Your task to perform on an android device: Go to notification settings Image 0: 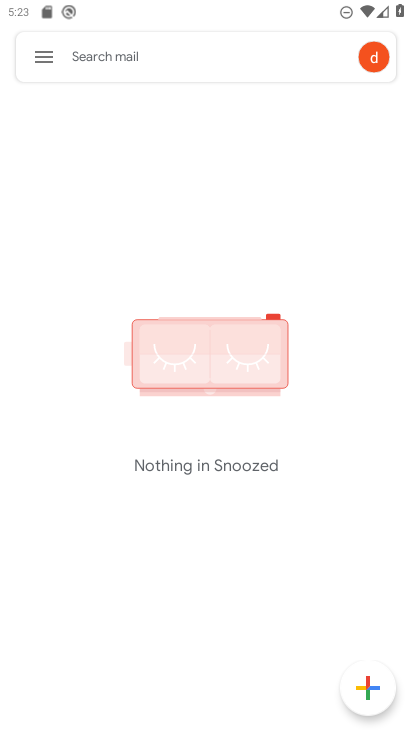
Step 0: click (165, 688)
Your task to perform on an android device: Go to notification settings Image 1: 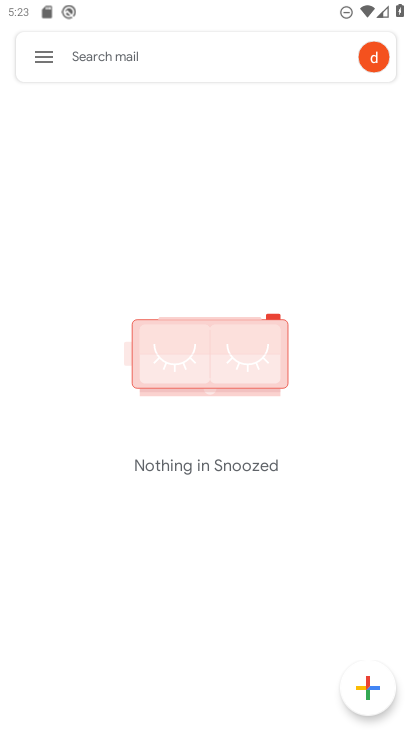
Step 1: press home button
Your task to perform on an android device: Go to notification settings Image 2: 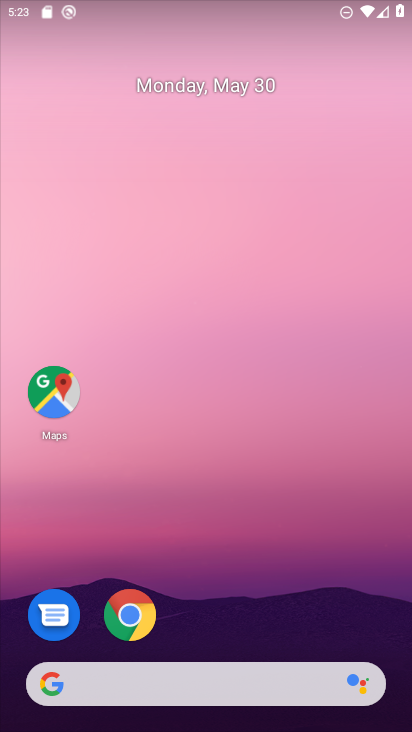
Step 2: drag from (227, 405) to (214, 92)
Your task to perform on an android device: Go to notification settings Image 3: 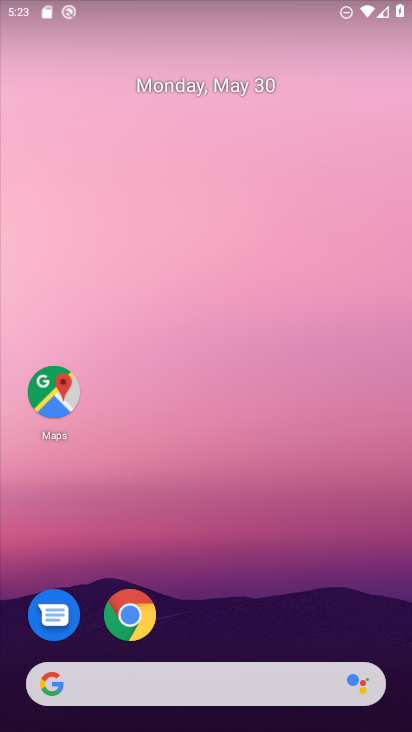
Step 3: drag from (238, 631) to (236, 110)
Your task to perform on an android device: Go to notification settings Image 4: 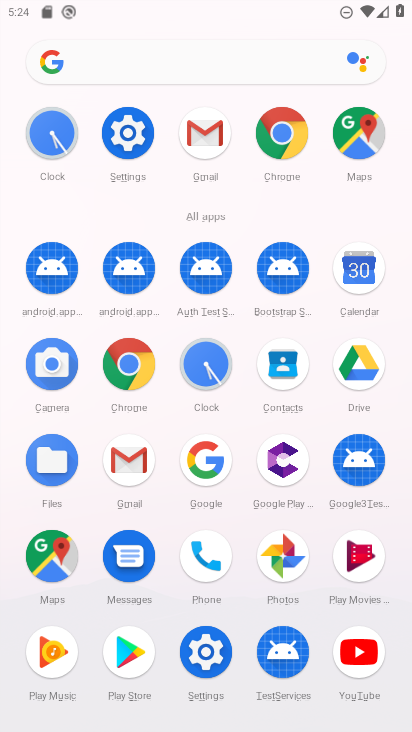
Step 4: click (118, 117)
Your task to perform on an android device: Go to notification settings Image 5: 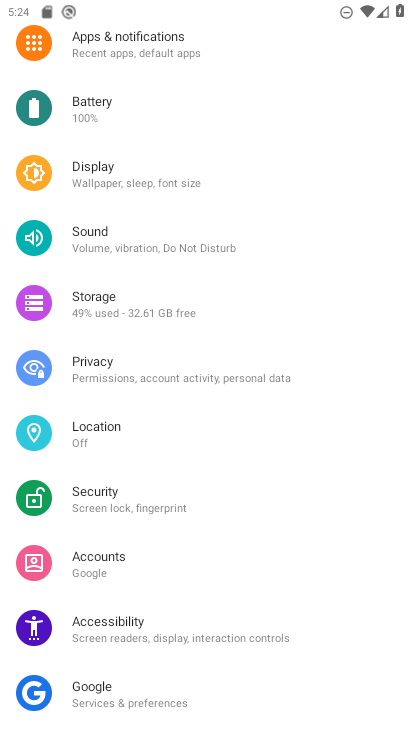
Step 5: click (149, 68)
Your task to perform on an android device: Go to notification settings Image 6: 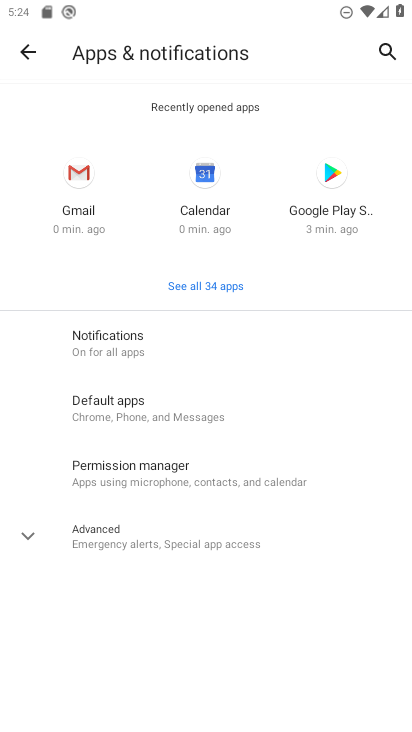
Step 6: click (149, 356)
Your task to perform on an android device: Go to notification settings Image 7: 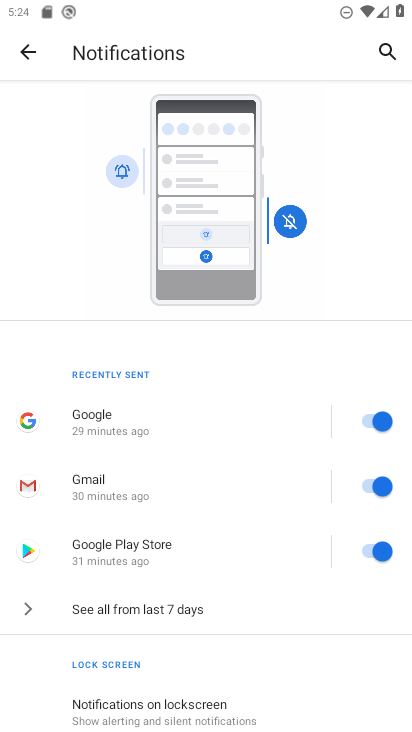
Step 7: task complete